Your task to perform on an android device: Open maps Image 0: 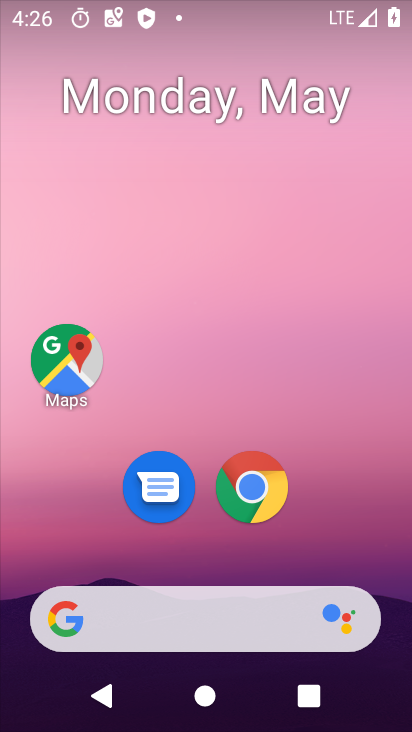
Step 0: click (63, 360)
Your task to perform on an android device: Open maps Image 1: 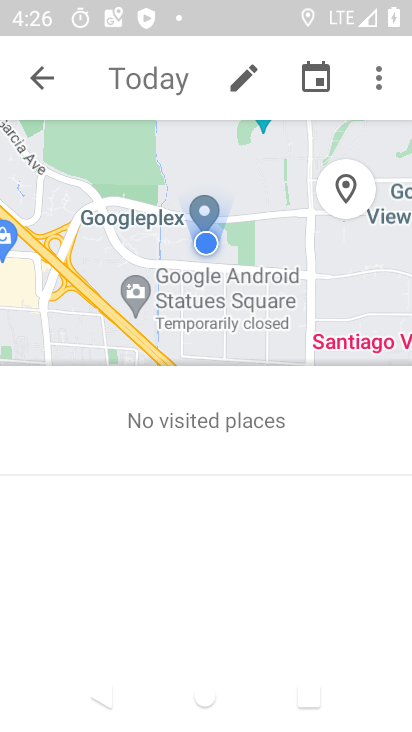
Step 1: task complete